Your task to perform on an android device: turn on airplane mode Image 0: 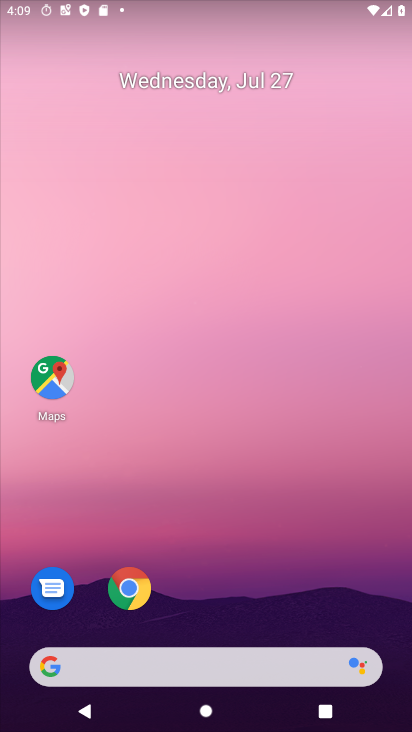
Step 0: press home button
Your task to perform on an android device: turn on airplane mode Image 1: 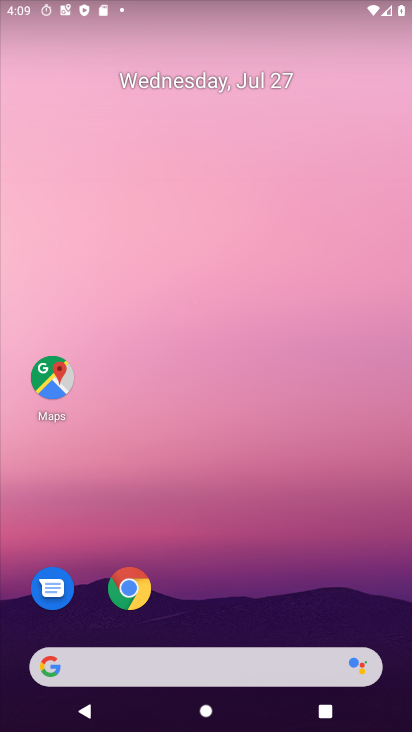
Step 1: drag from (216, 4) to (313, 459)
Your task to perform on an android device: turn on airplane mode Image 2: 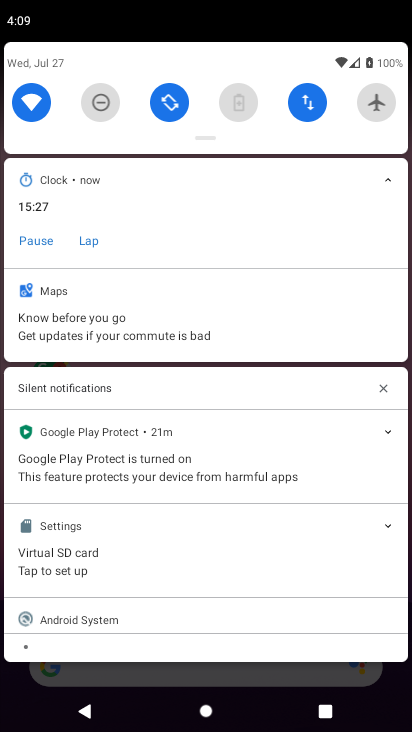
Step 2: click (373, 108)
Your task to perform on an android device: turn on airplane mode Image 3: 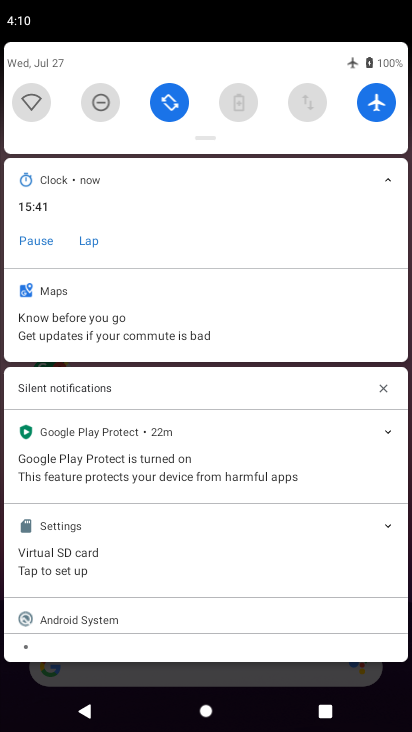
Step 3: task complete